Your task to perform on an android device: install app "LiveIn - Share Your Moment" Image 0: 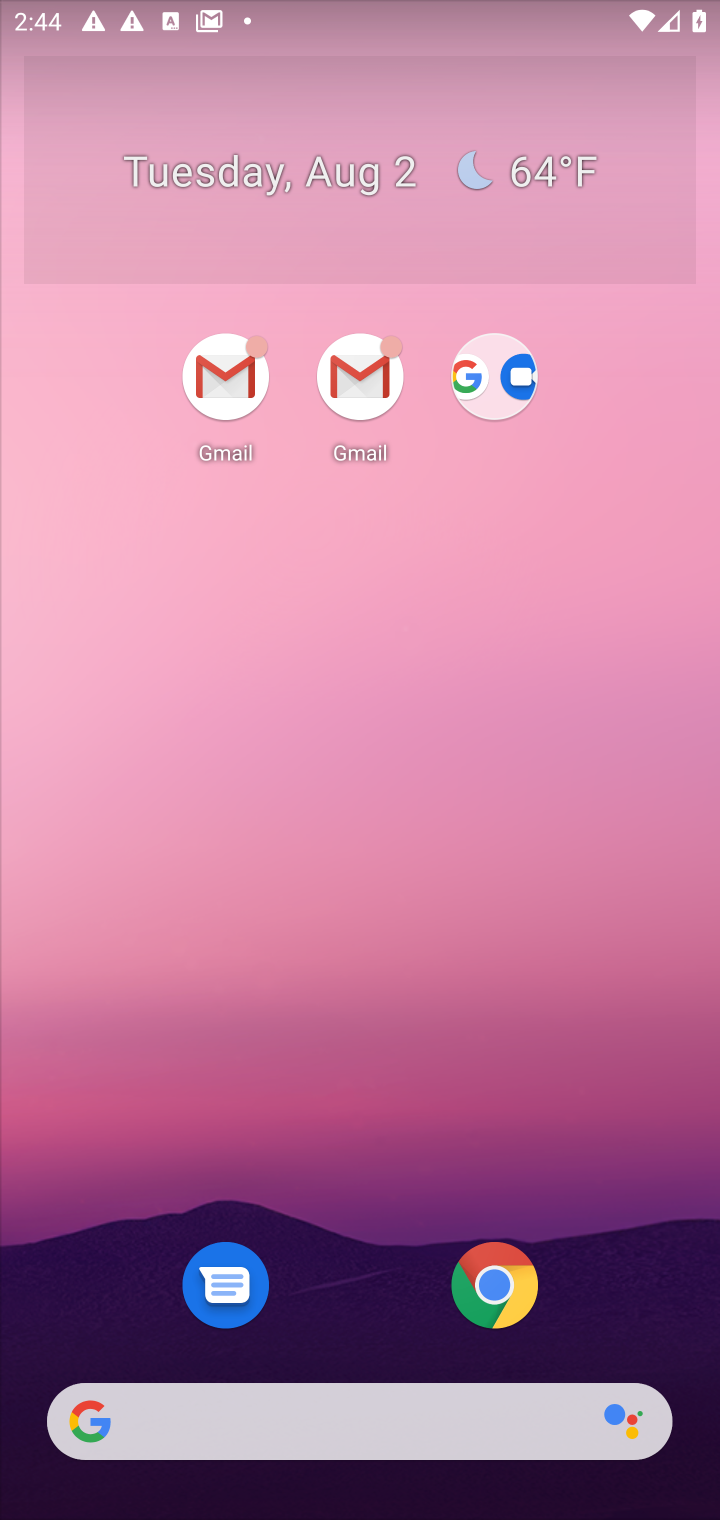
Step 0: drag from (376, 1151) to (532, 236)
Your task to perform on an android device: install app "LiveIn - Share Your Moment" Image 1: 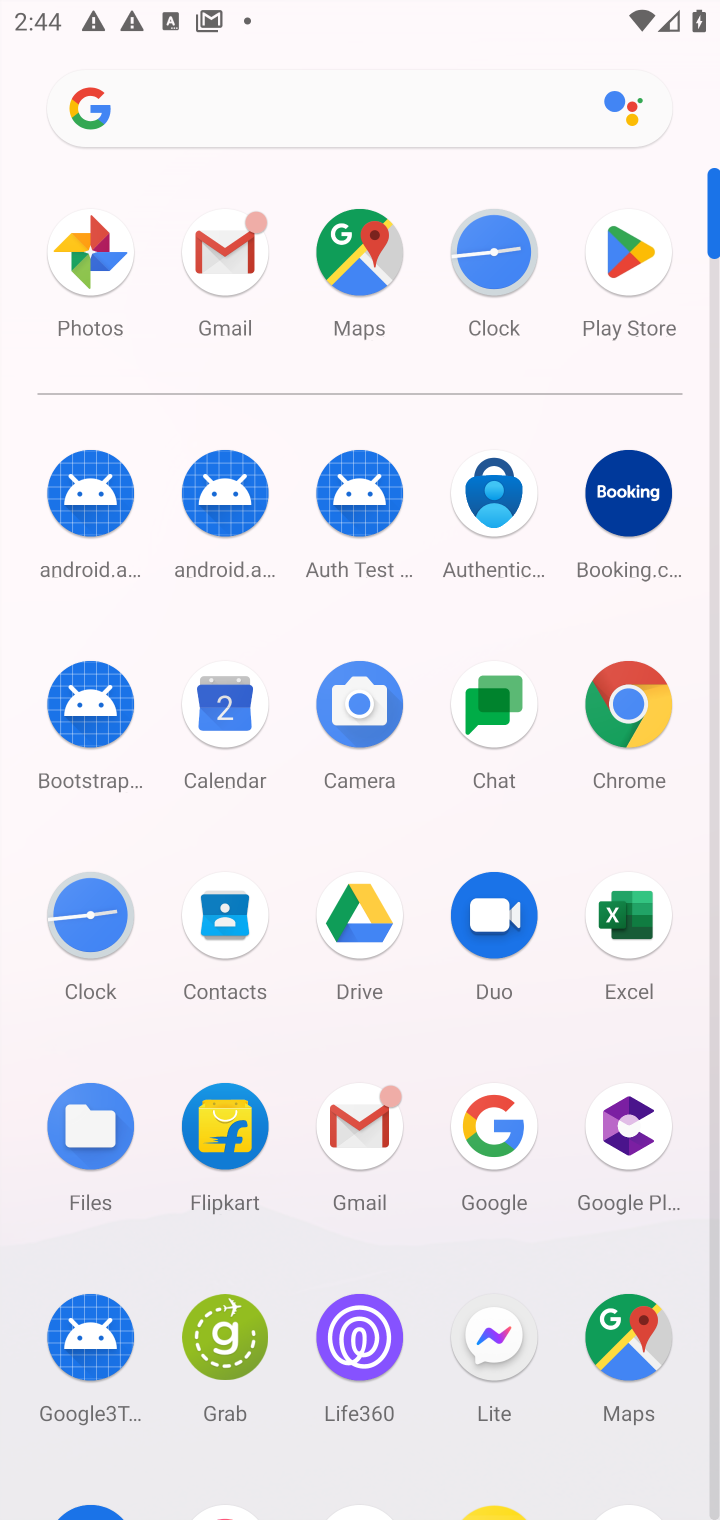
Step 1: drag from (415, 1202) to (491, 304)
Your task to perform on an android device: install app "LiveIn - Share Your Moment" Image 2: 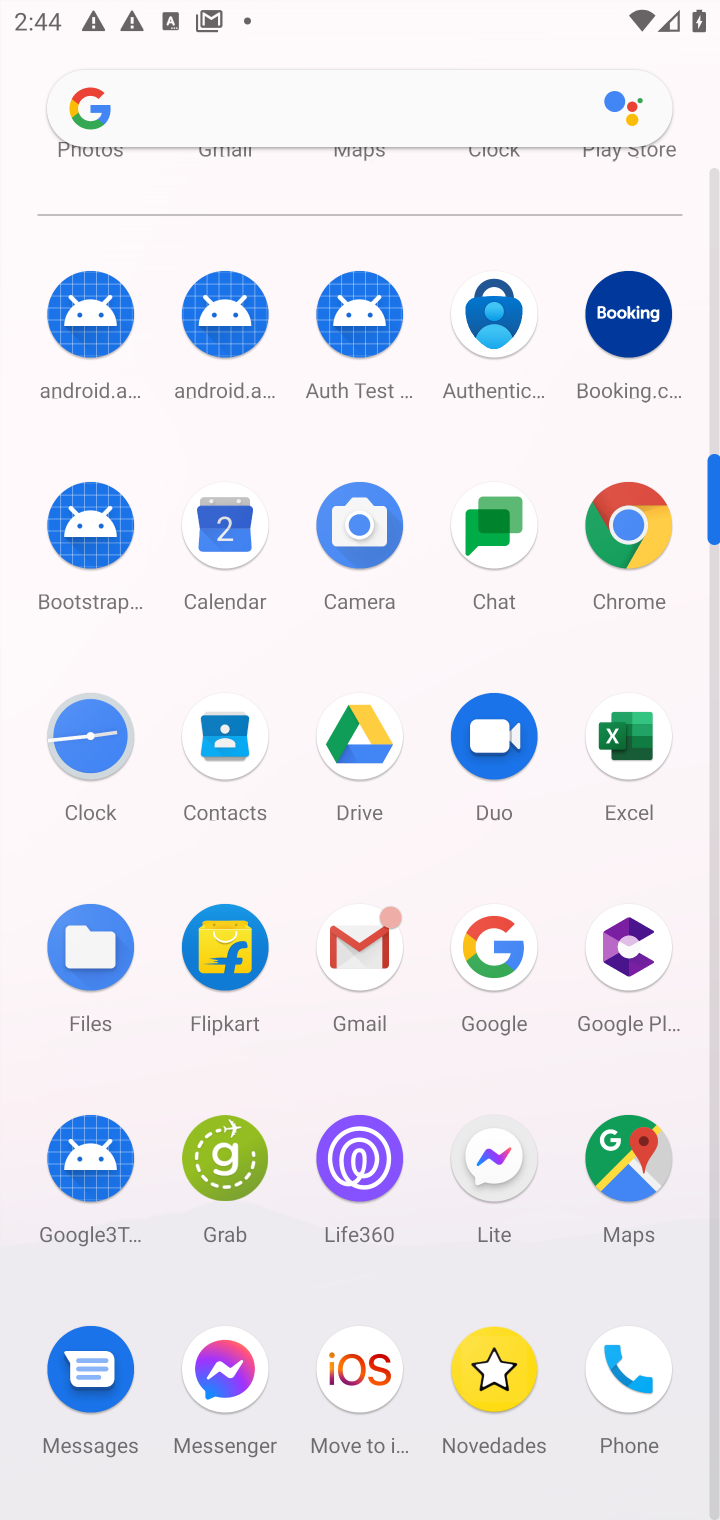
Step 2: drag from (429, 1275) to (478, 588)
Your task to perform on an android device: install app "LiveIn - Share Your Moment" Image 3: 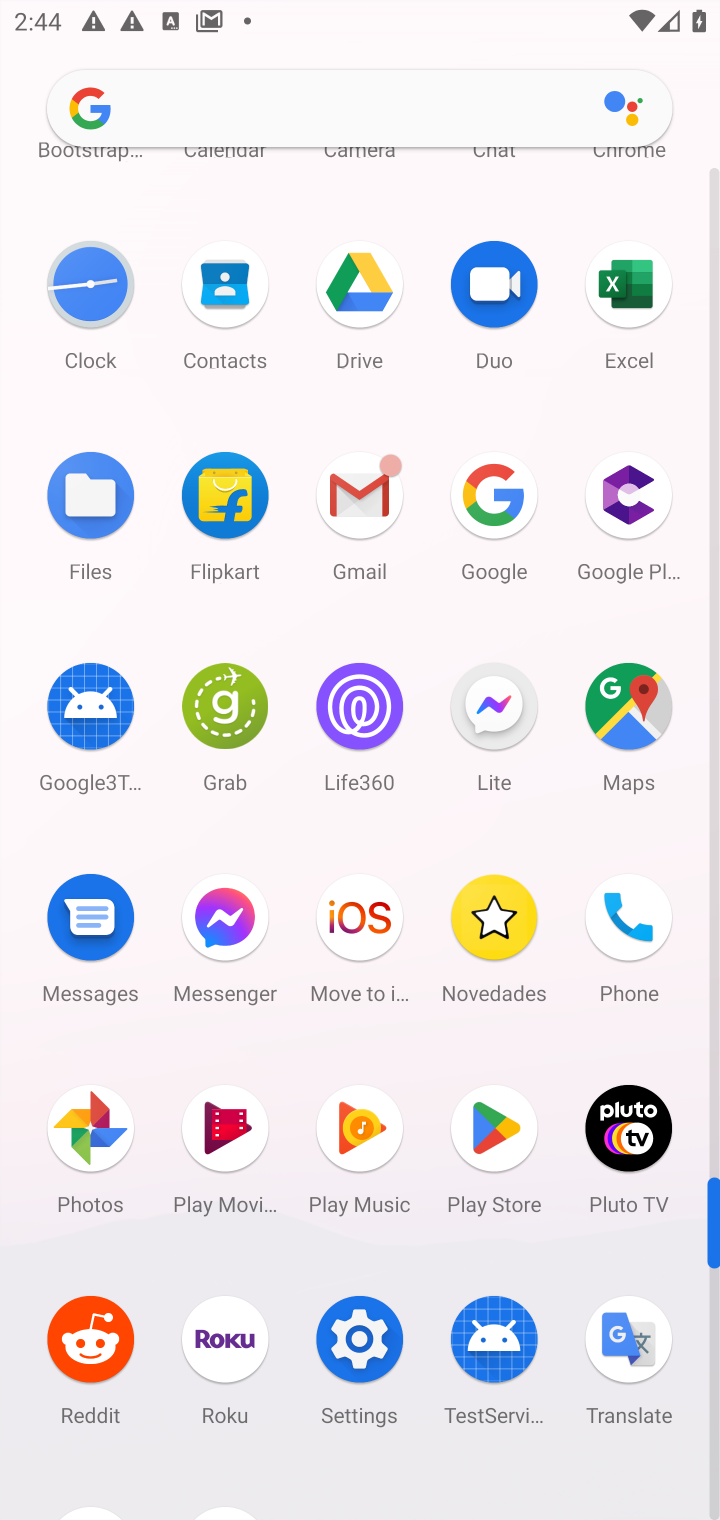
Step 3: click (503, 1142)
Your task to perform on an android device: install app "LiveIn - Share Your Moment" Image 4: 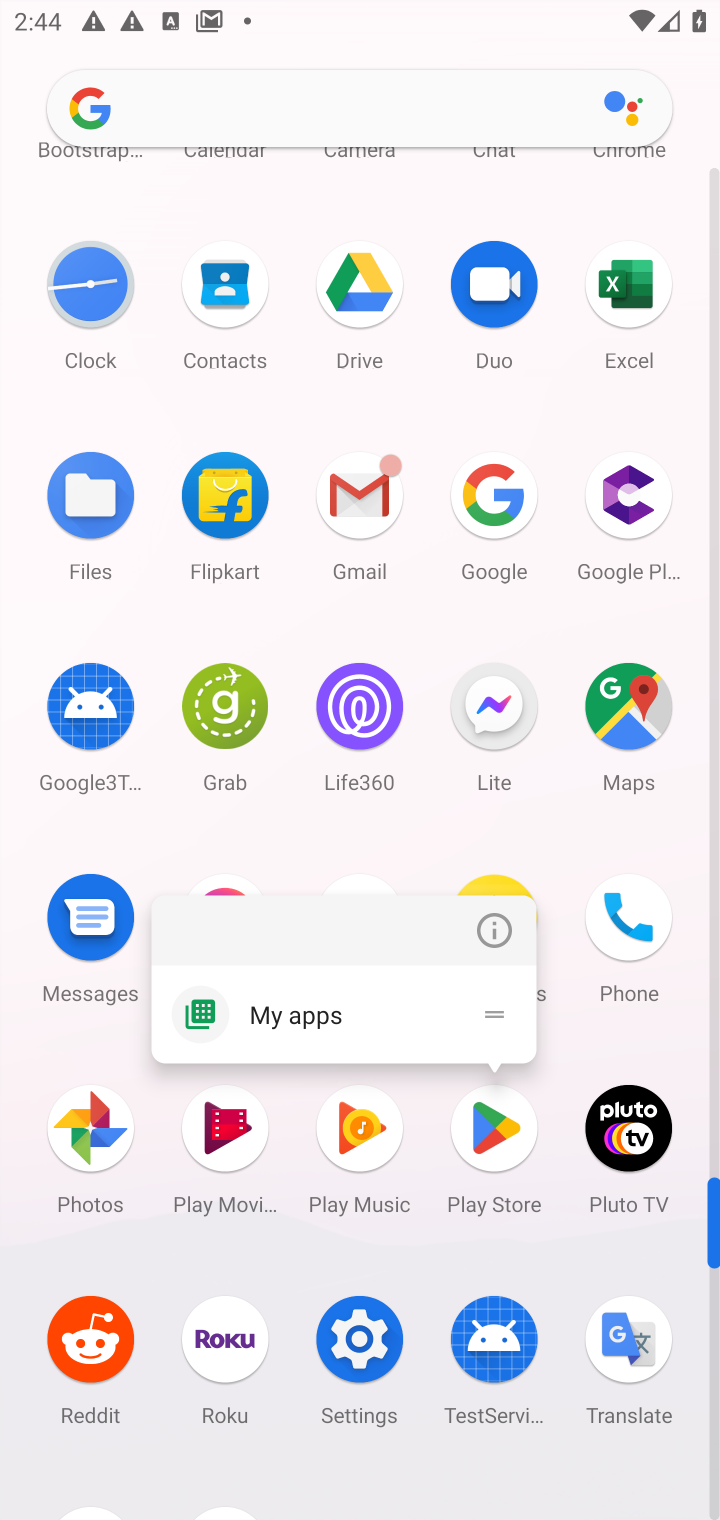
Step 4: click (492, 1113)
Your task to perform on an android device: install app "LiveIn - Share Your Moment" Image 5: 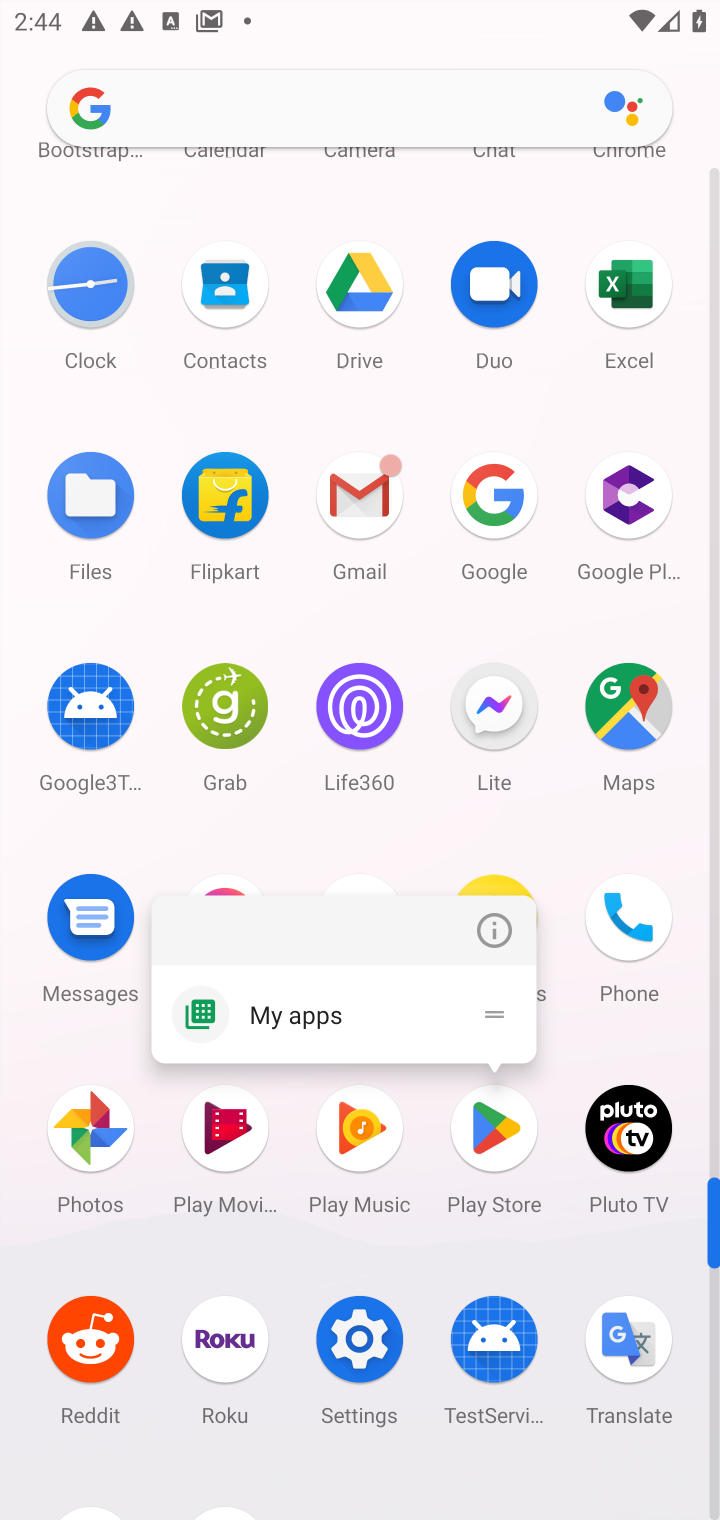
Step 5: click (483, 1114)
Your task to perform on an android device: install app "LiveIn - Share Your Moment" Image 6: 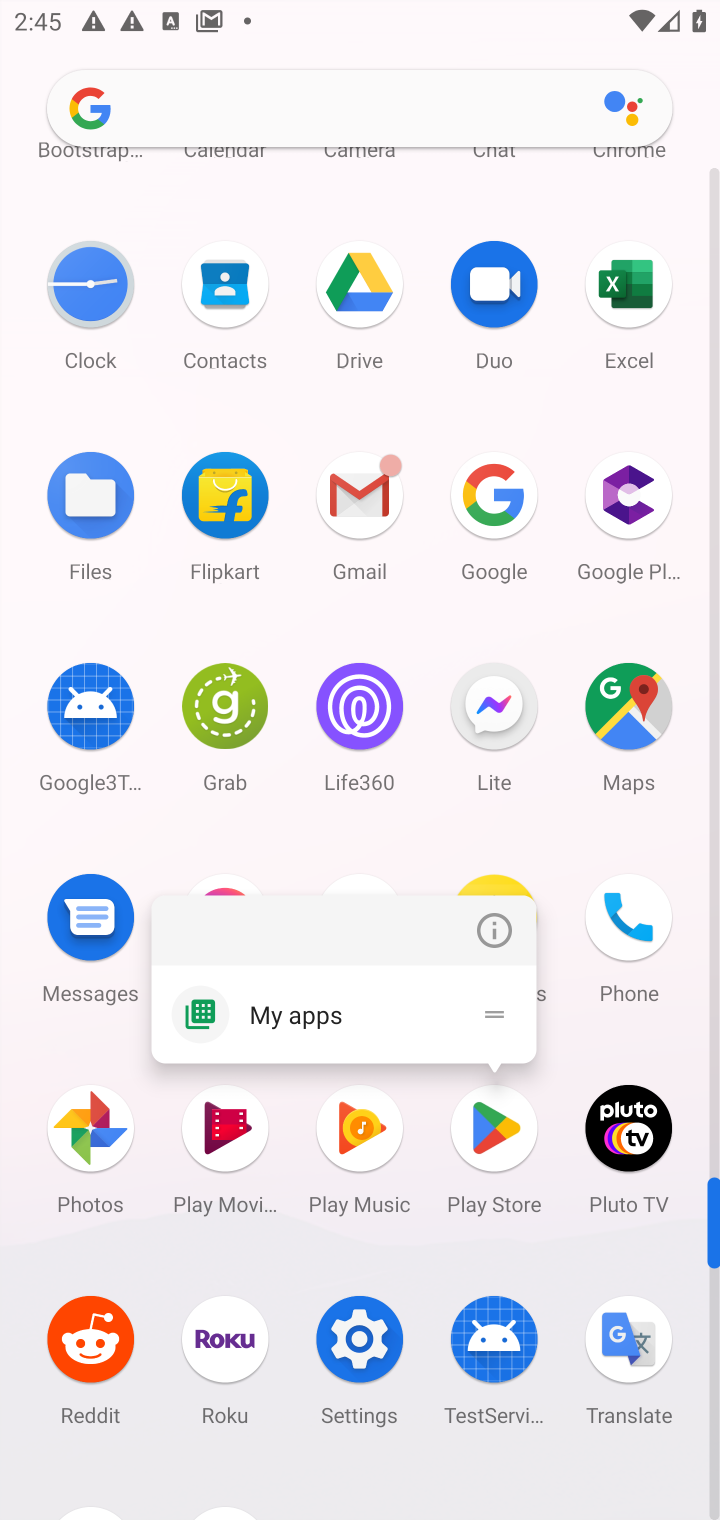
Step 6: click (481, 1132)
Your task to perform on an android device: install app "LiveIn - Share Your Moment" Image 7: 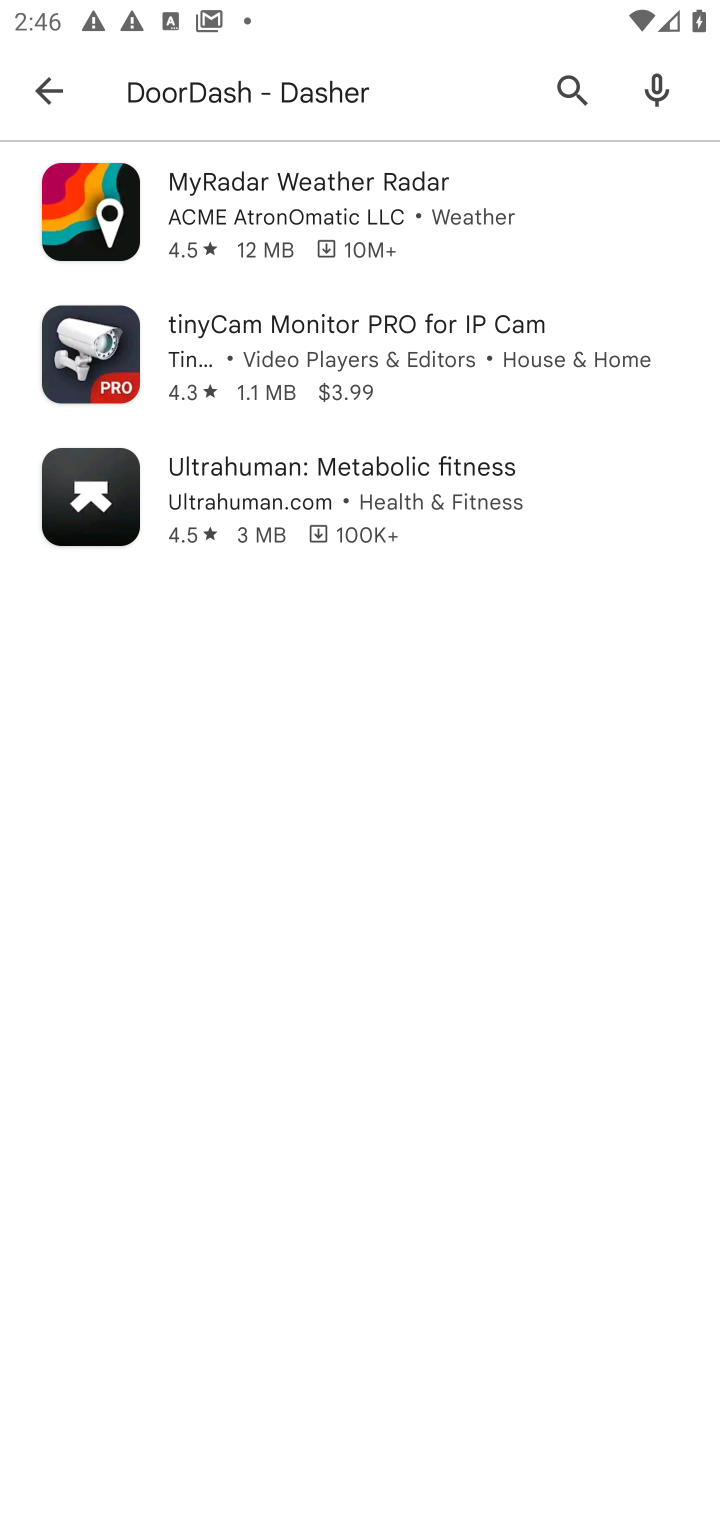
Step 7: click (448, 76)
Your task to perform on an android device: install app "LiveIn - Share Your Moment" Image 8: 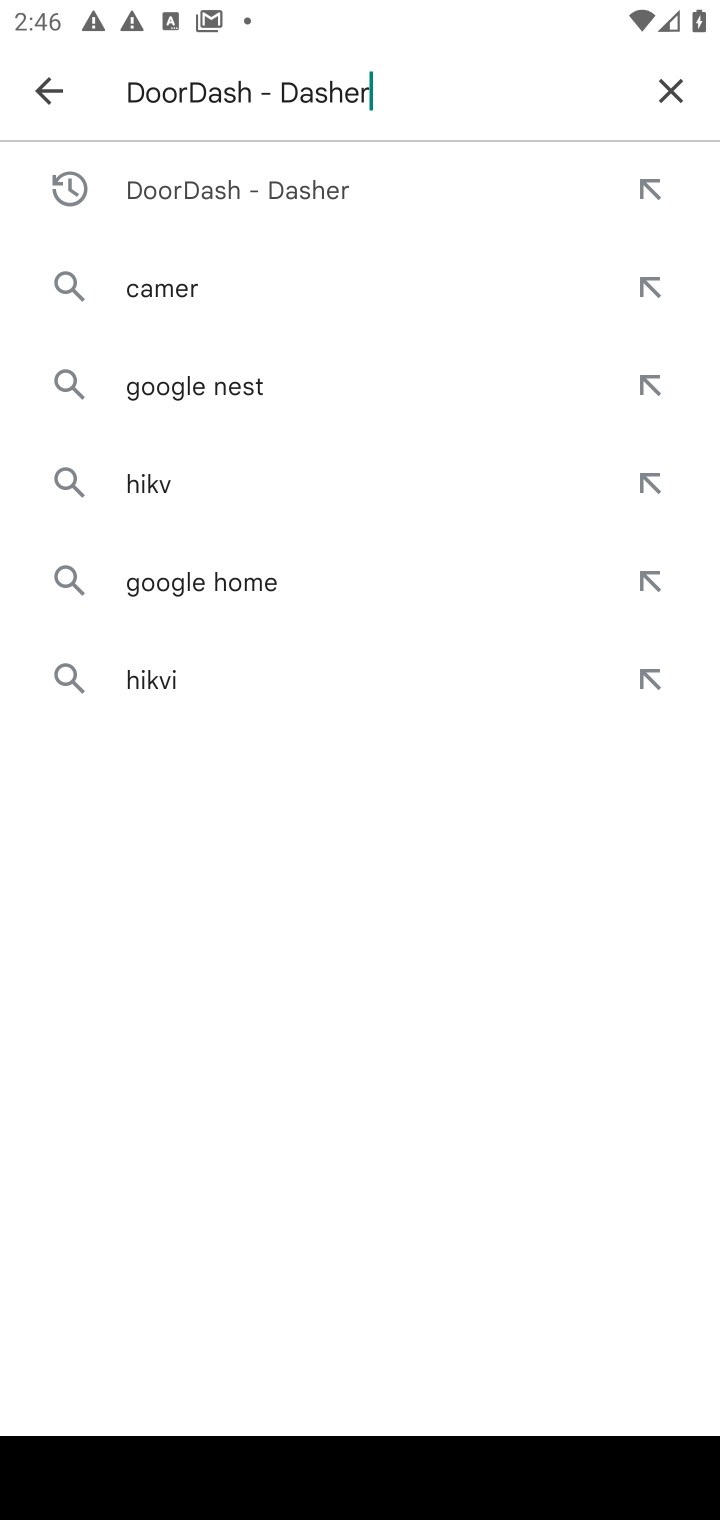
Step 8: click (671, 90)
Your task to perform on an android device: install app "LiveIn - Share Your Moment" Image 9: 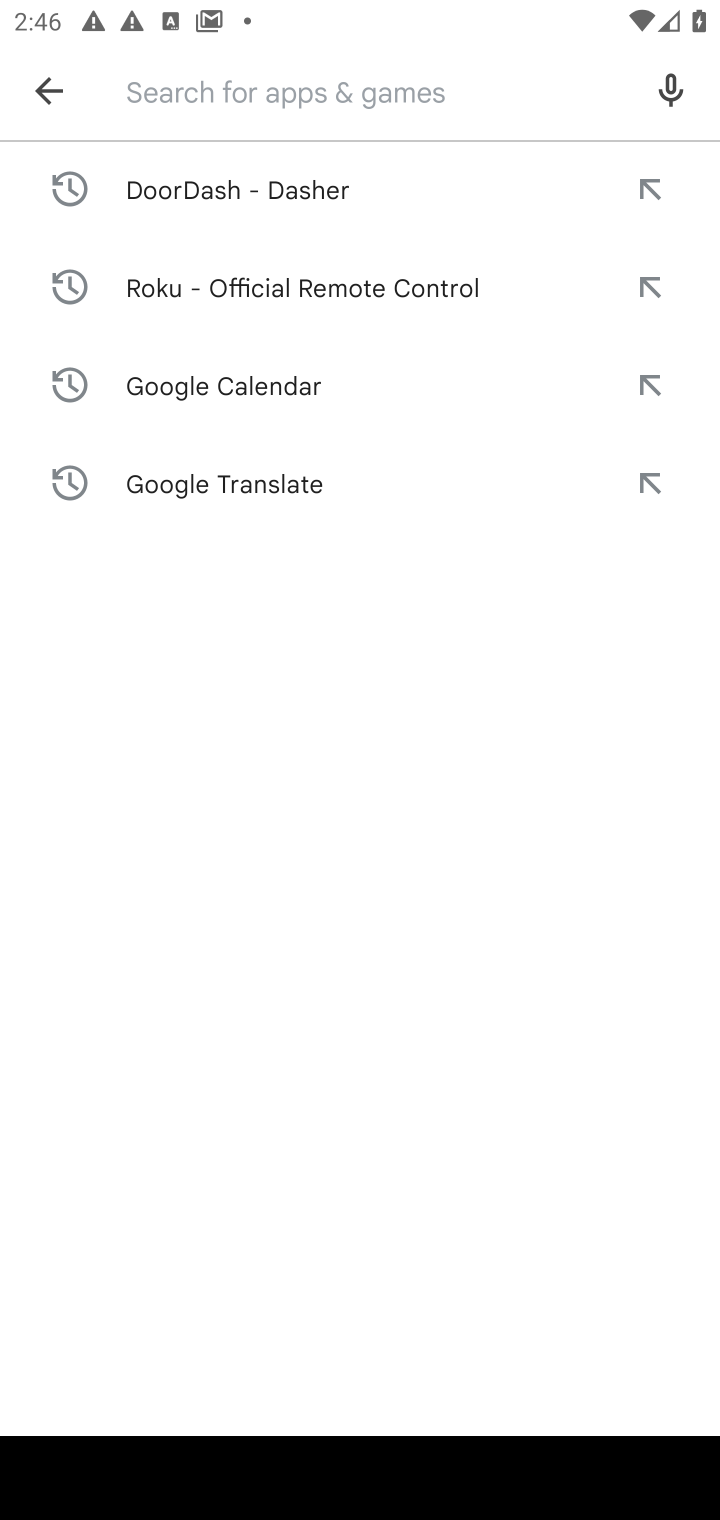
Step 9: type "Liveln - Share Your Moment"
Your task to perform on an android device: install app "LiveIn - Share Your Moment" Image 10: 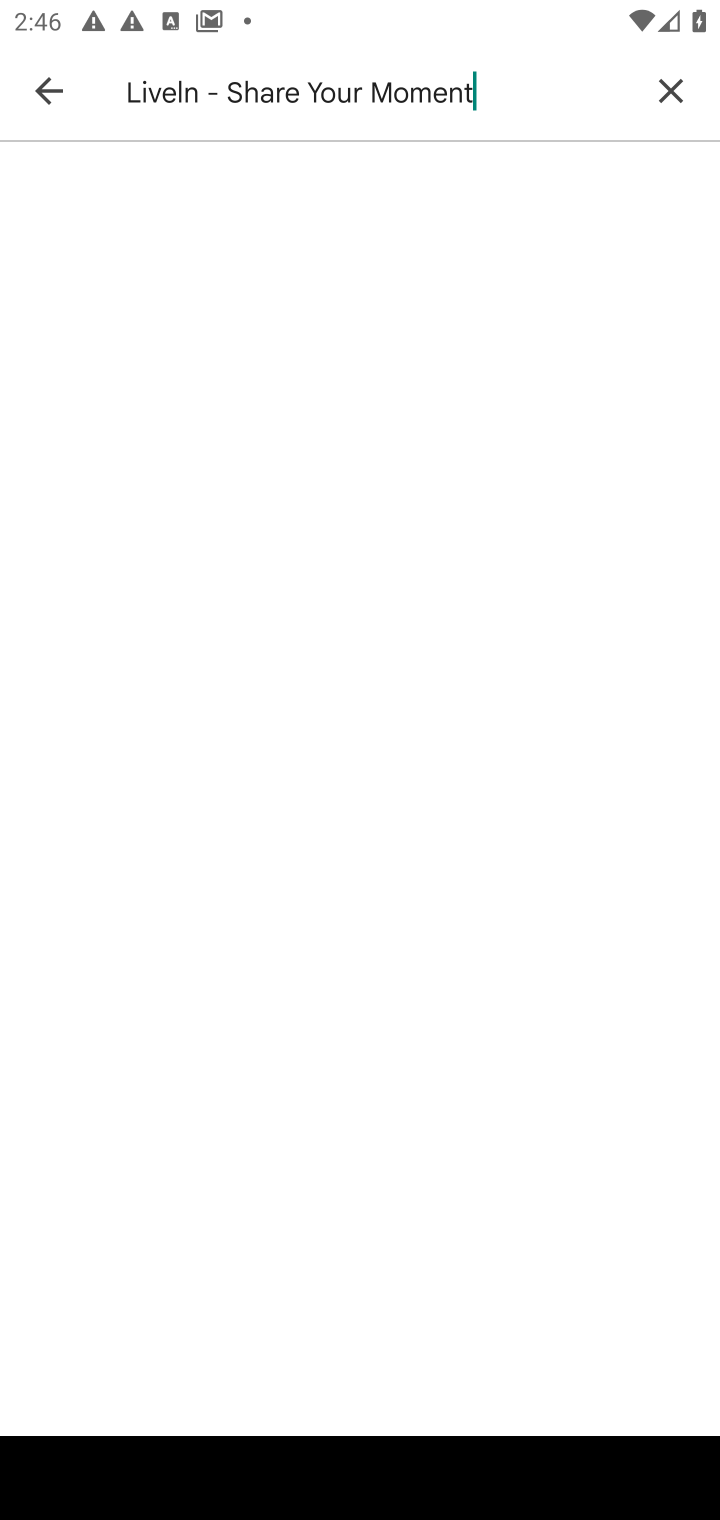
Step 10: press enter
Your task to perform on an android device: install app "LiveIn - Share Your Moment" Image 11: 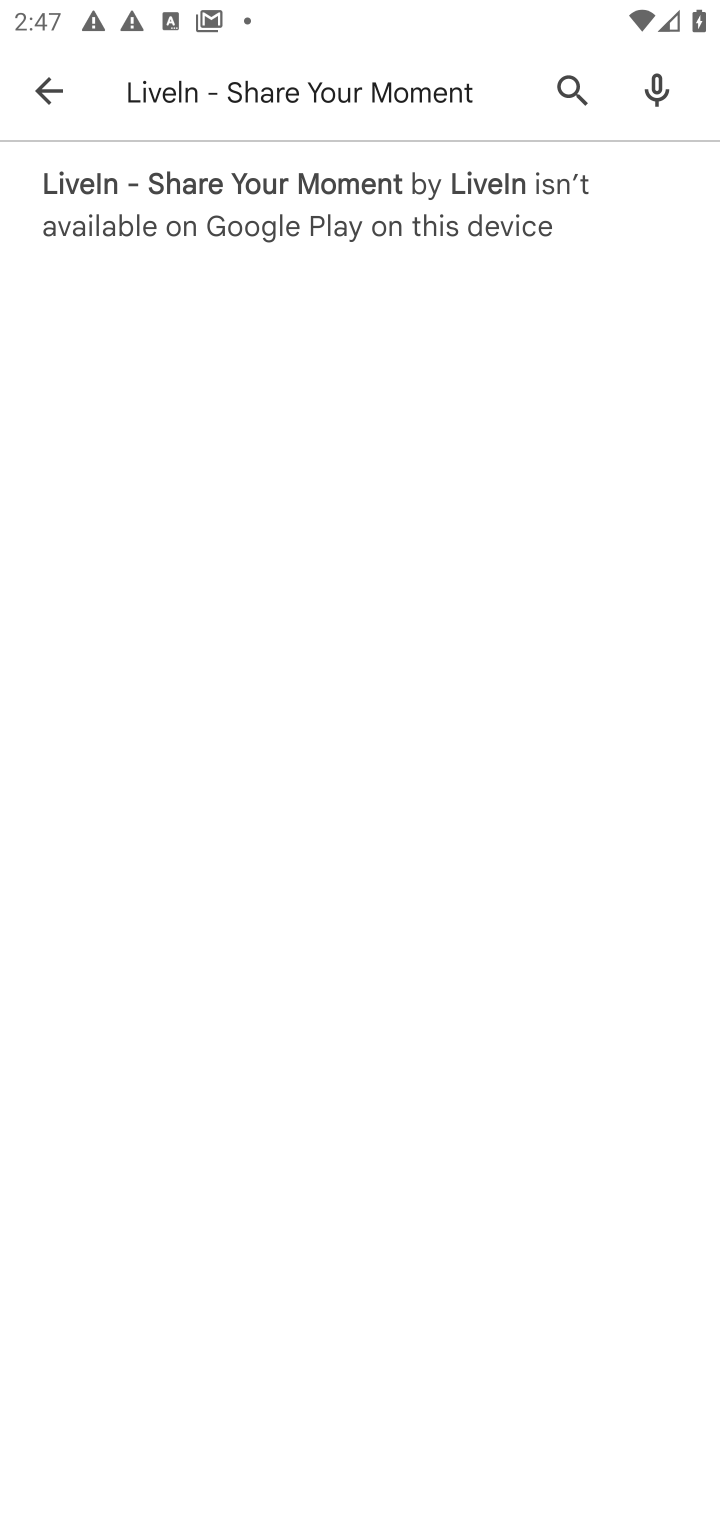
Step 11: task complete